Your task to perform on an android device: When is my next appointment? Image 0: 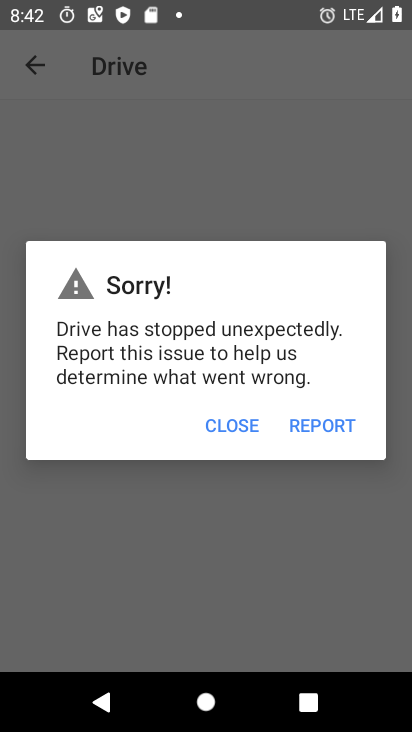
Step 0: press home button
Your task to perform on an android device: When is my next appointment? Image 1: 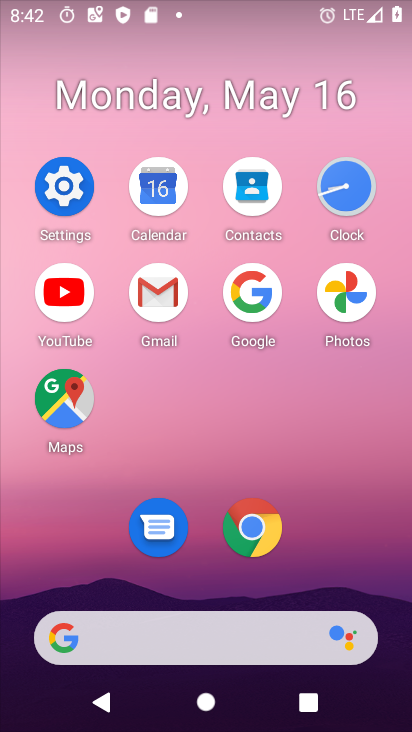
Step 1: click (163, 180)
Your task to perform on an android device: When is my next appointment? Image 2: 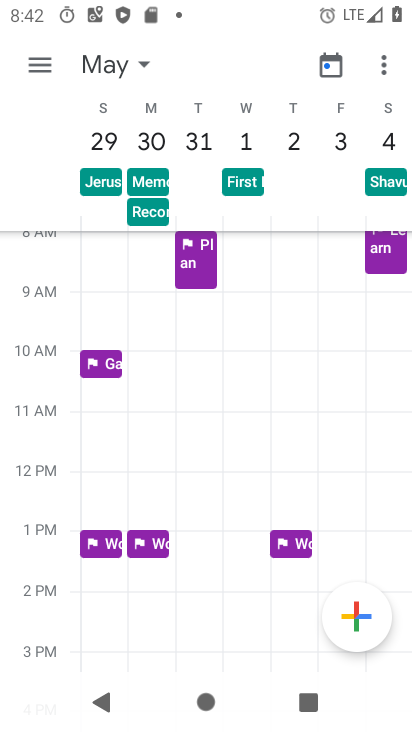
Step 2: drag from (92, 132) to (404, 154)
Your task to perform on an android device: When is my next appointment? Image 3: 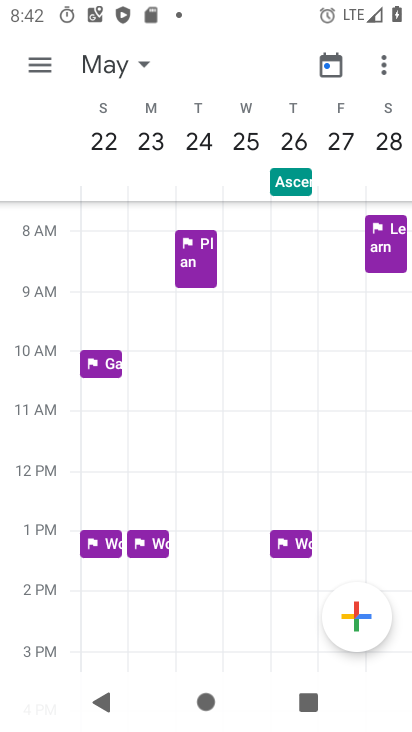
Step 3: drag from (111, 136) to (410, 146)
Your task to perform on an android device: When is my next appointment? Image 4: 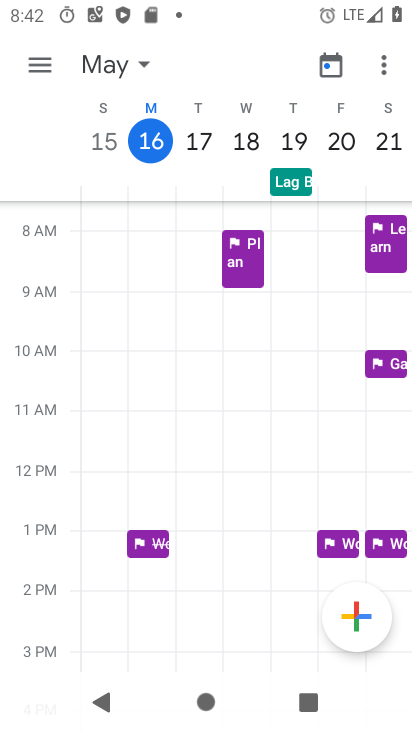
Step 4: click (252, 131)
Your task to perform on an android device: When is my next appointment? Image 5: 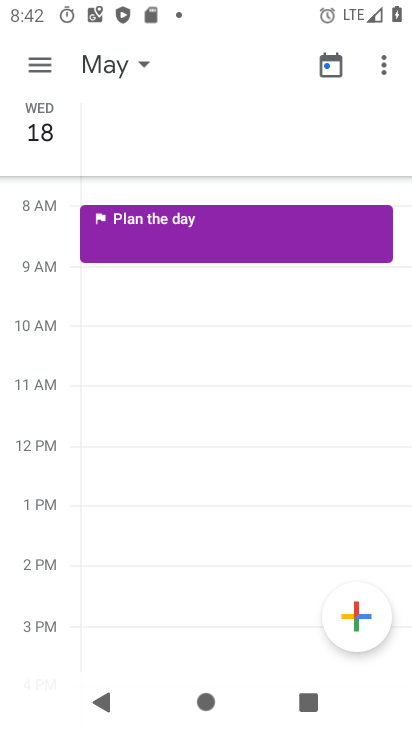
Step 5: task complete